Your task to perform on an android device: What's on my calendar tomorrow? Image 0: 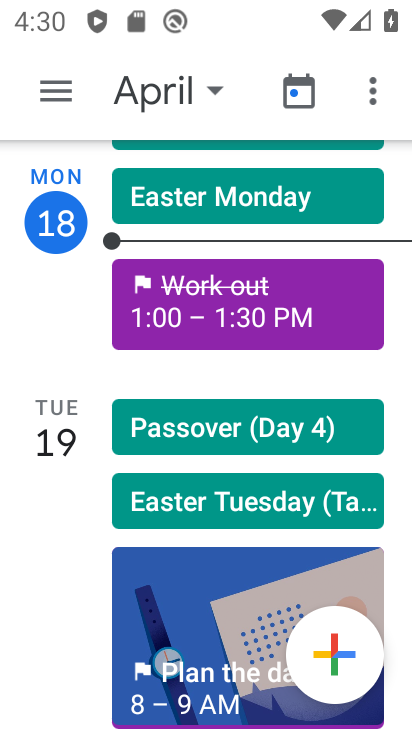
Step 0: drag from (194, 614) to (261, 323)
Your task to perform on an android device: What's on my calendar tomorrow? Image 1: 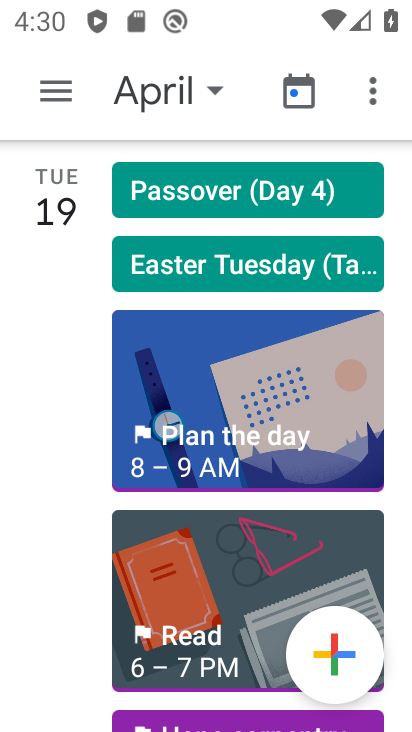
Step 1: click (208, 262)
Your task to perform on an android device: What's on my calendar tomorrow? Image 2: 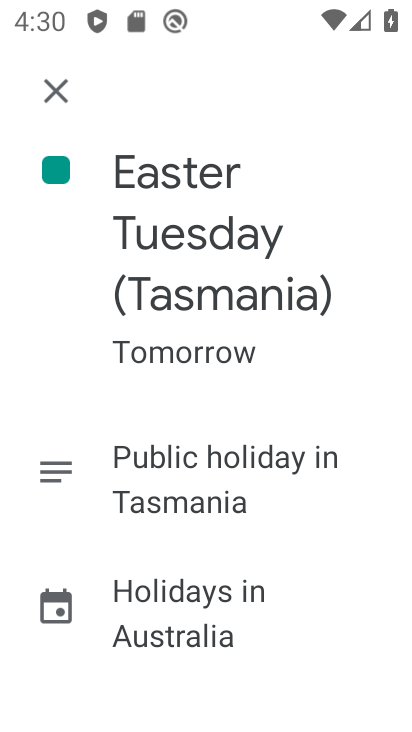
Step 2: task complete